Your task to perform on an android device: empty trash in google photos Image 0: 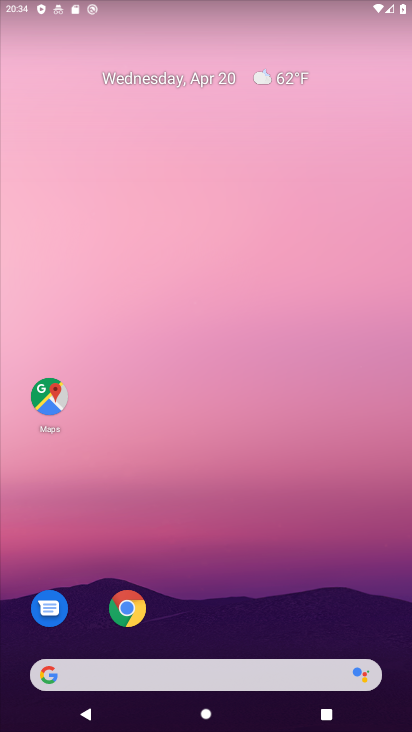
Step 0: click (171, 4)
Your task to perform on an android device: empty trash in google photos Image 1: 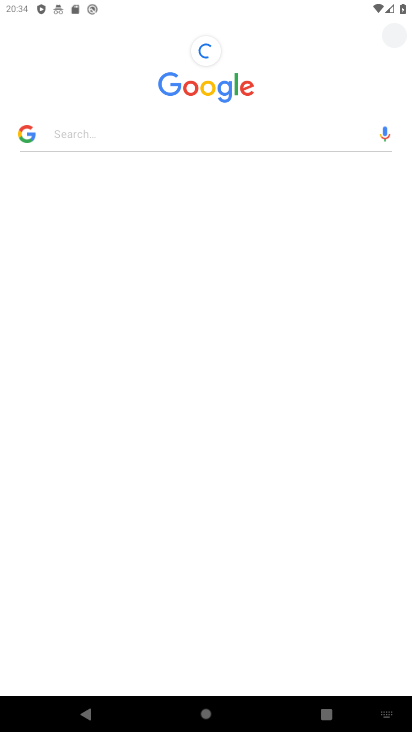
Step 1: press home button
Your task to perform on an android device: empty trash in google photos Image 2: 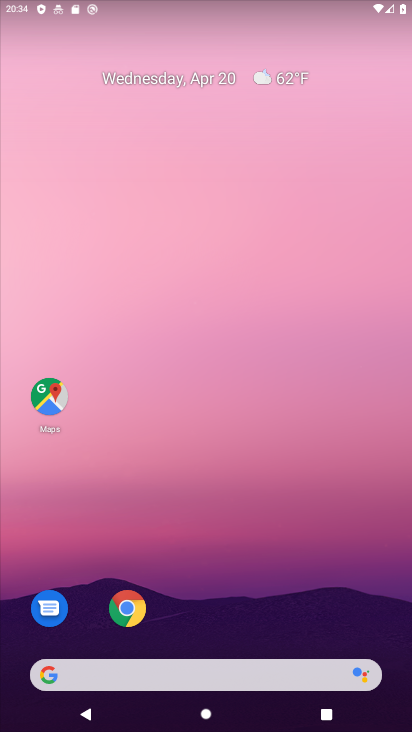
Step 2: drag from (268, 594) to (271, 22)
Your task to perform on an android device: empty trash in google photos Image 3: 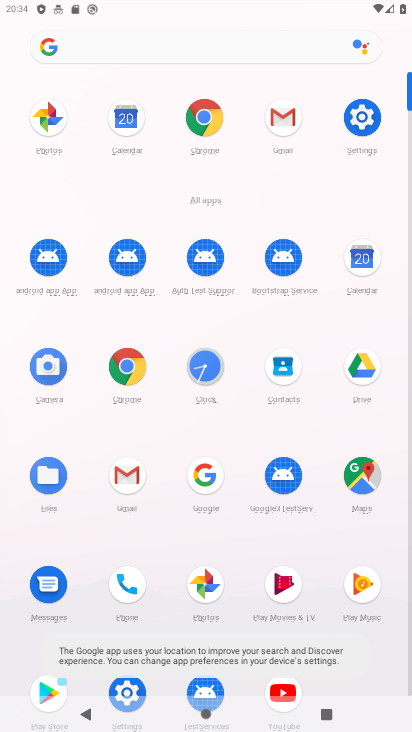
Step 3: click (59, 120)
Your task to perform on an android device: empty trash in google photos Image 4: 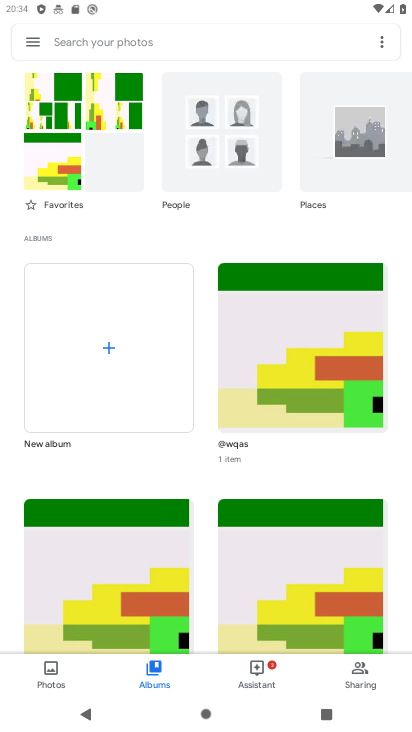
Step 4: click (37, 30)
Your task to perform on an android device: empty trash in google photos Image 5: 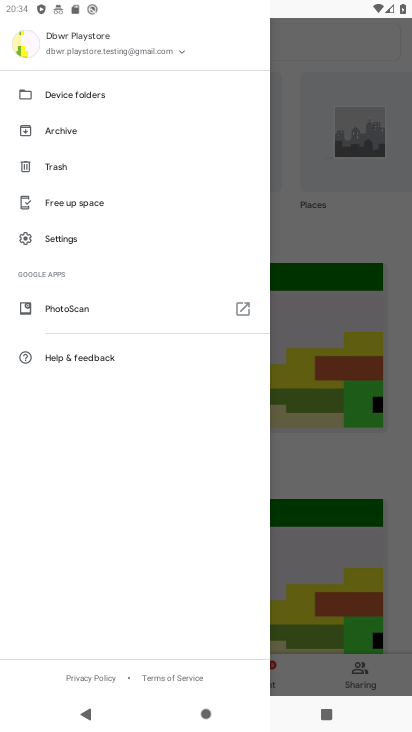
Step 5: click (61, 172)
Your task to perform on an android device: empty trash in google photos Image 6: 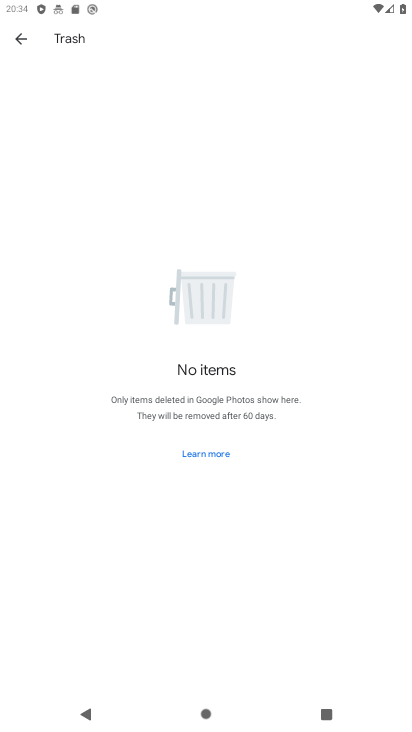
Step 6: task complete